Your task to perform on an android device: Open the map Image 0: 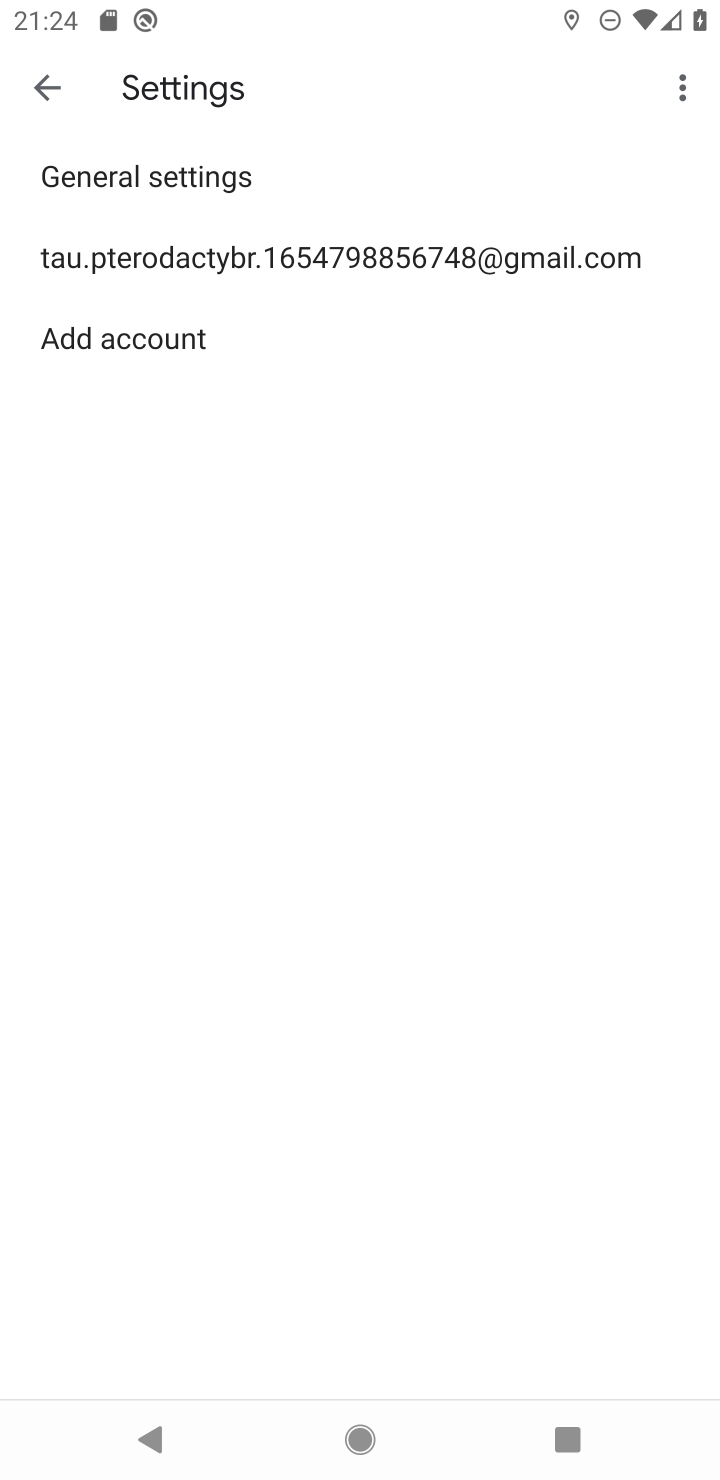
Step 0: press home button
Your task to perform on an android device: Open the map Image 1: 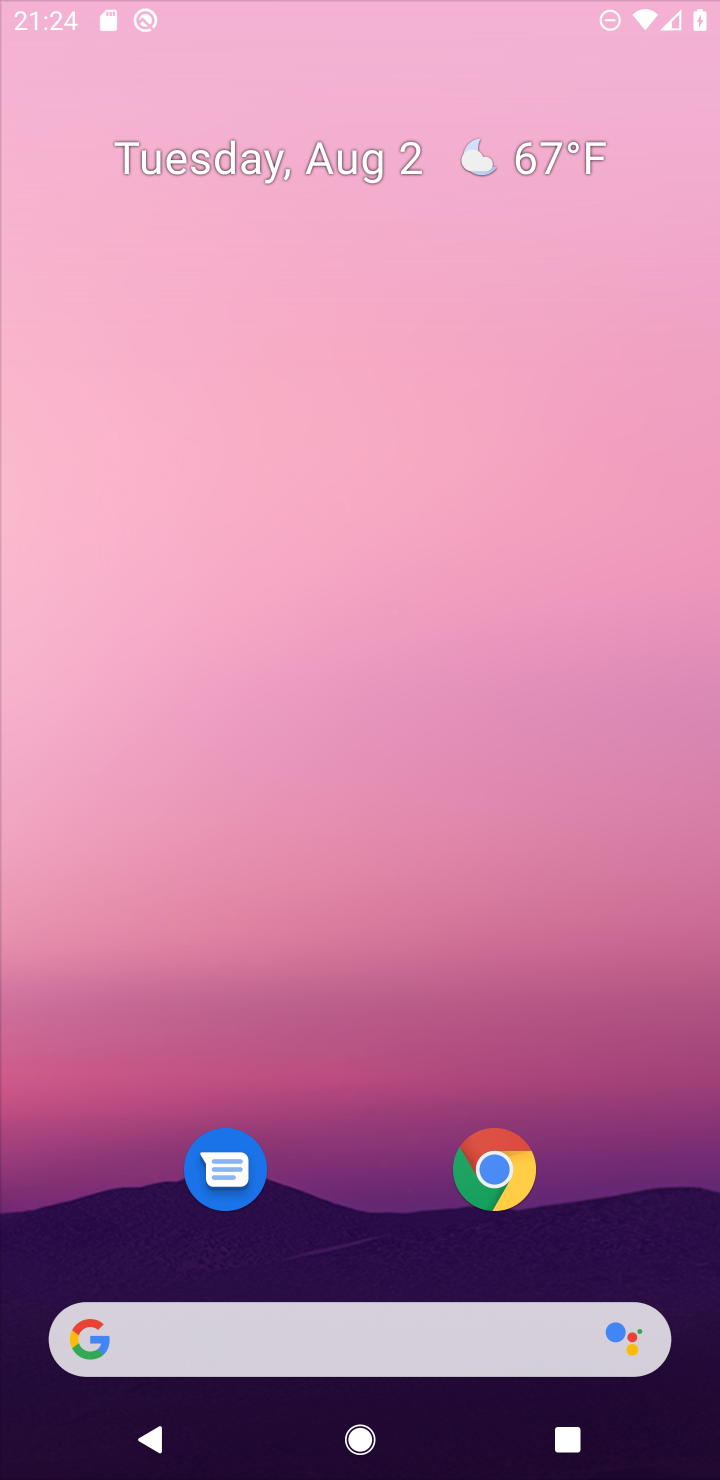
Step 1: press home button
Your task to perform on an android device: Open the map Image 2: 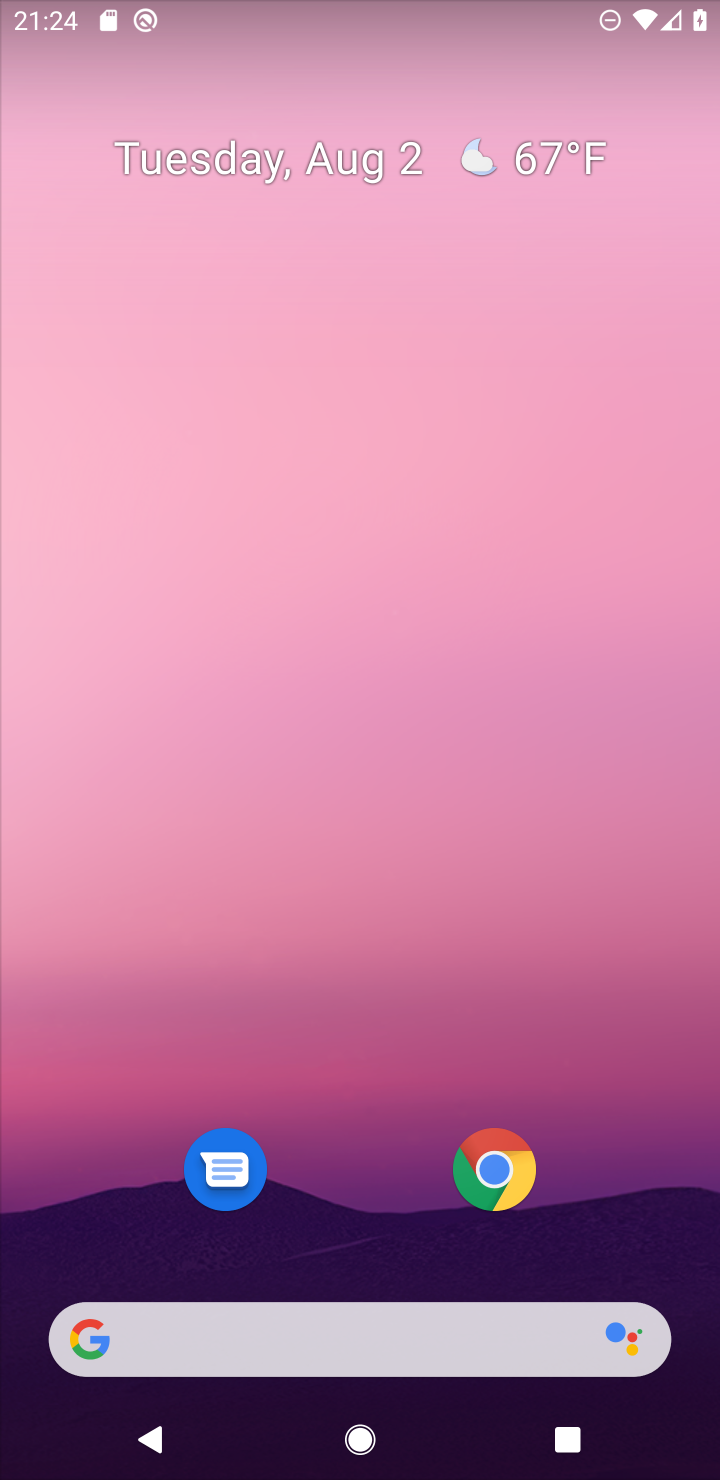
Step 2: click (486, 1170)
Your task to perform on an android device: Open the map Image 3: 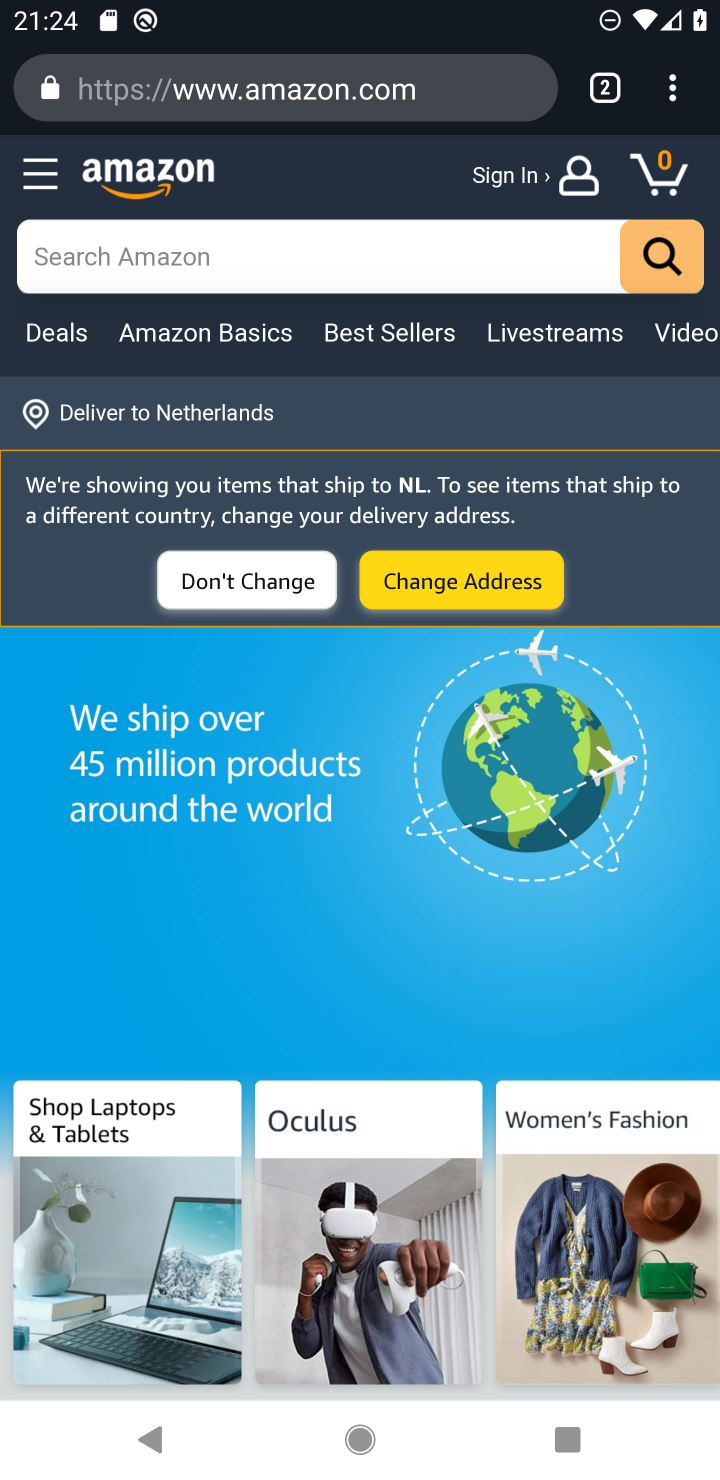
Step 3: press home button
Your task to perform on an android device: Open the map Image 4: 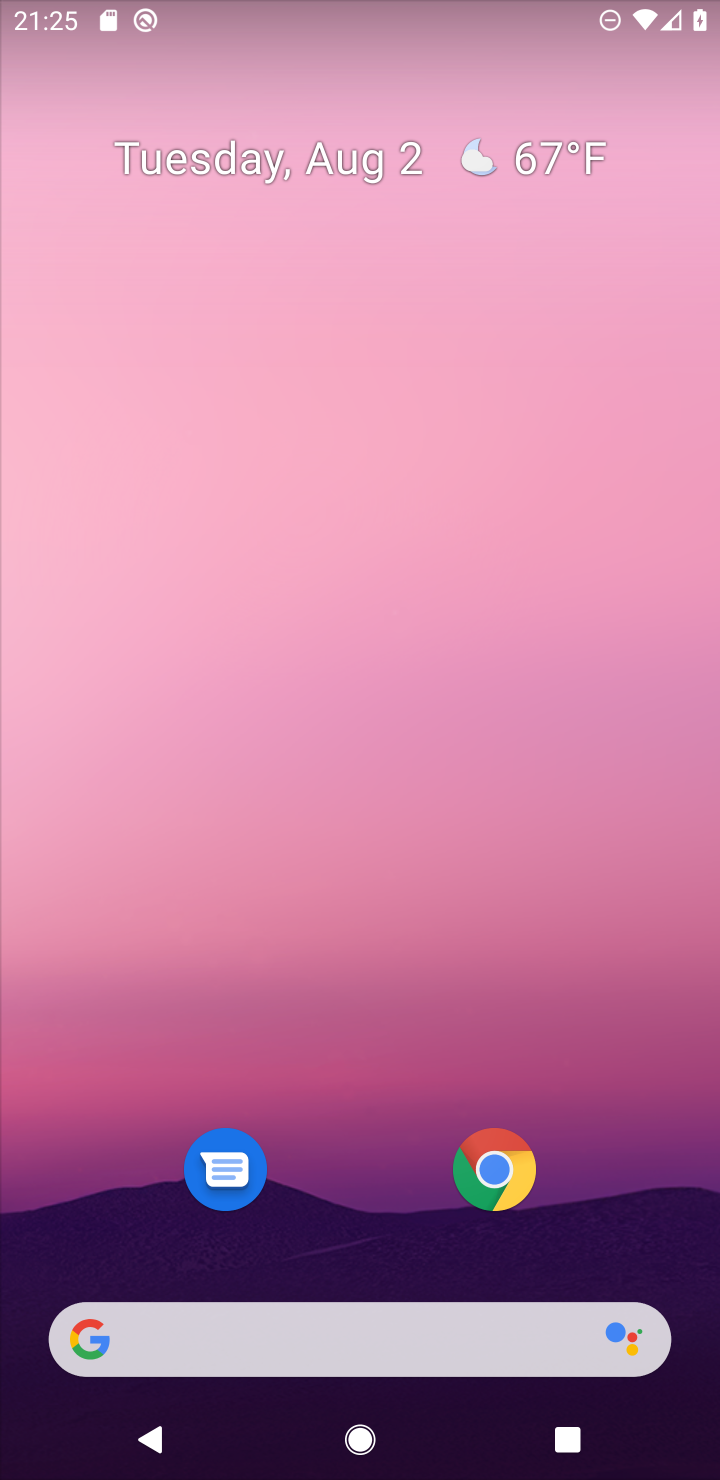
Step 4: drag from (386, 1240) to (332, 20)
Your task to perform on an android device: Open the map Image 5: 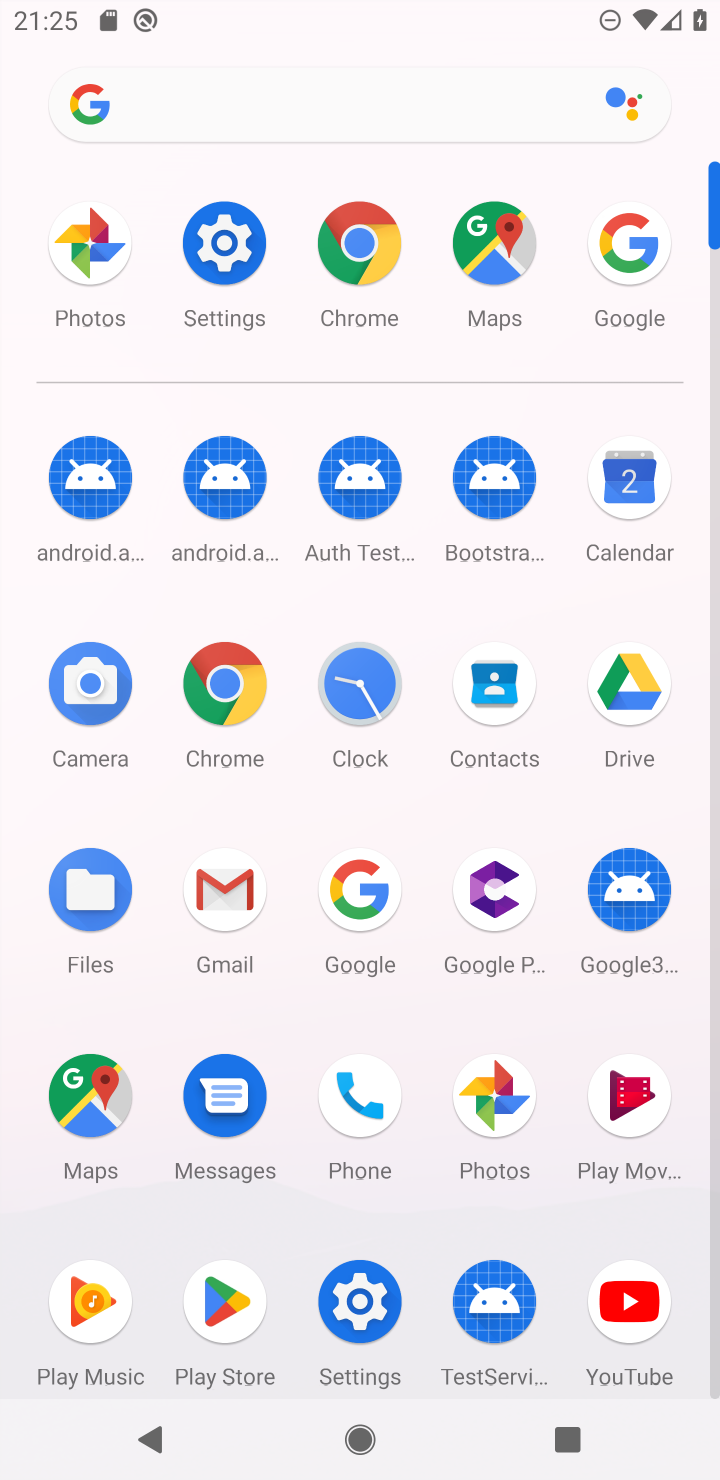
Step 5: click (85, 1093)
Your task to perform on an android device: Open the map Image 6: 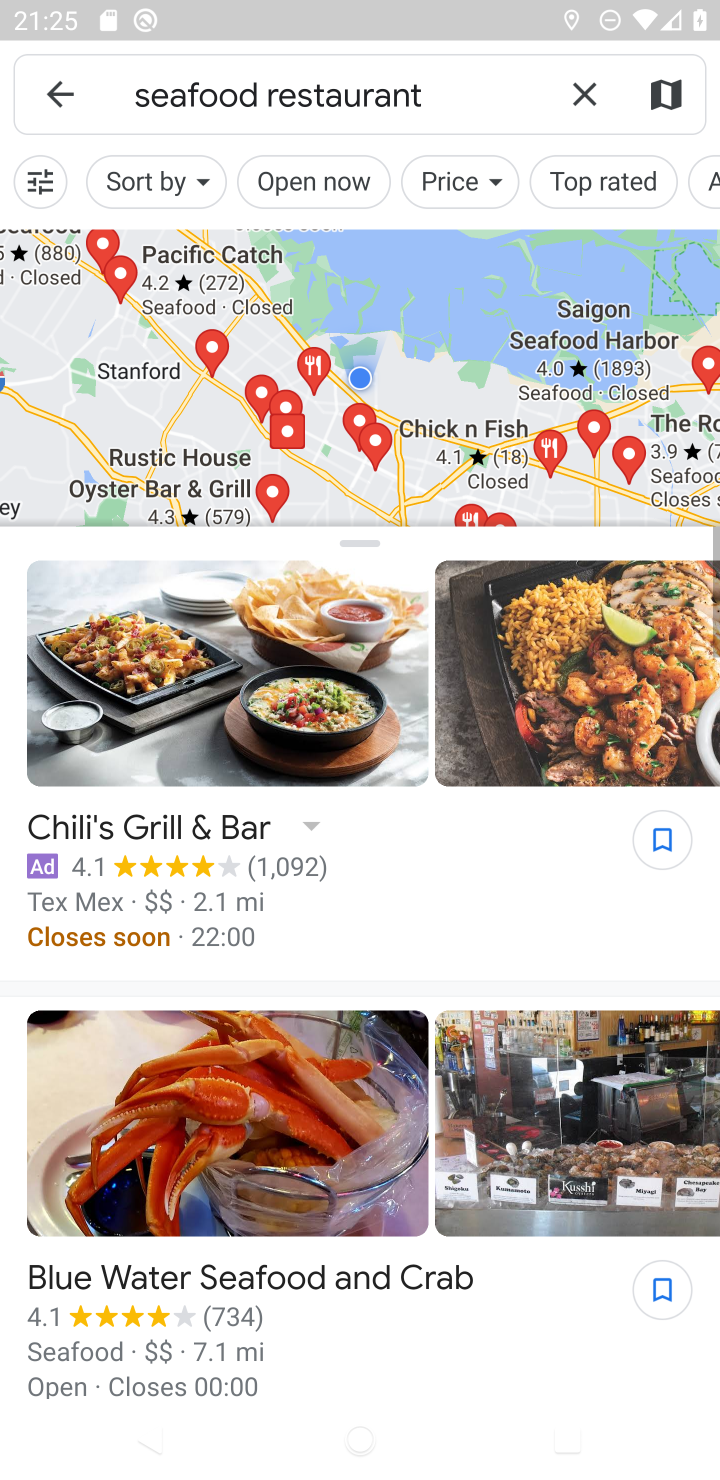
Step 6: task complete